Your task to perform on an android device: turn off sleep mode Image 0: 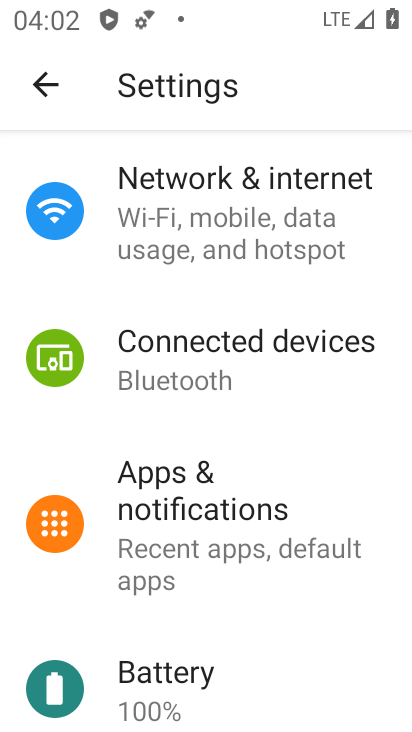
Step 0: click (49, 80)
Your task to perform on an android device: turn off sleep mode Image 1: 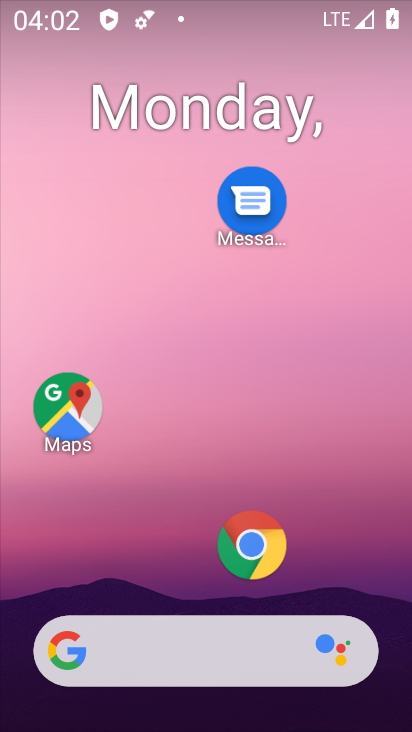
Step 1: drag from (158, 564) to (261, 127)
Your task to perform on an android device: turn off sleep mode Image 2: 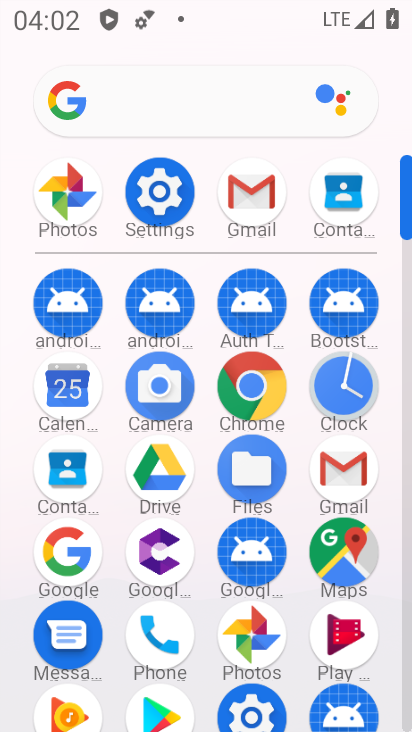
Step 2: click (149, 187)
Your task to perform on an android device: turn off sleep mode Image 3: 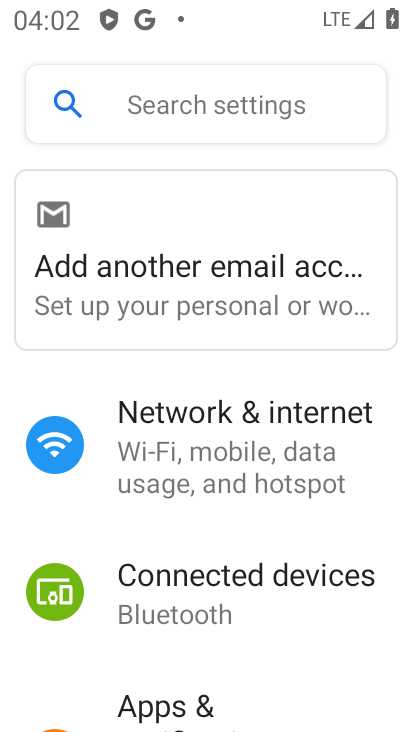
Step 3: click (190, 102)
Your task to perform on an android device: turn off sleep mode Image 4: 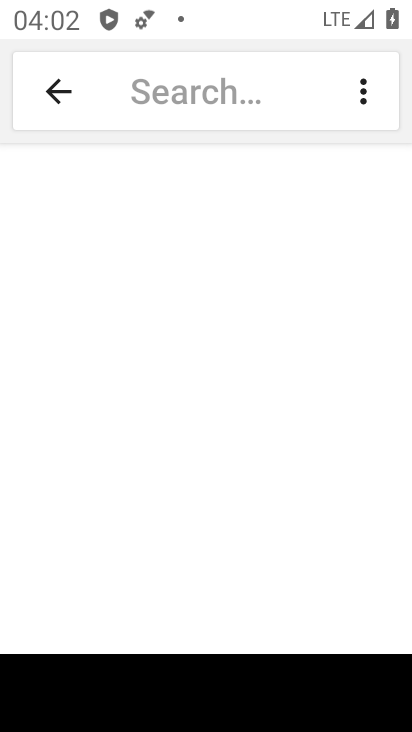
Step 4: click (156, 97)
Your task to perform on an android device: turn off sleep mode Image 5: 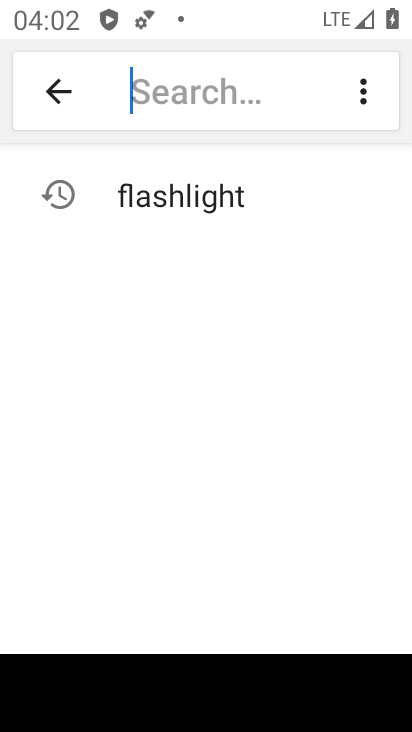
Step 5: type "sleep mode"
Your task to perform on an android device: turn off sleep mode Image 6: 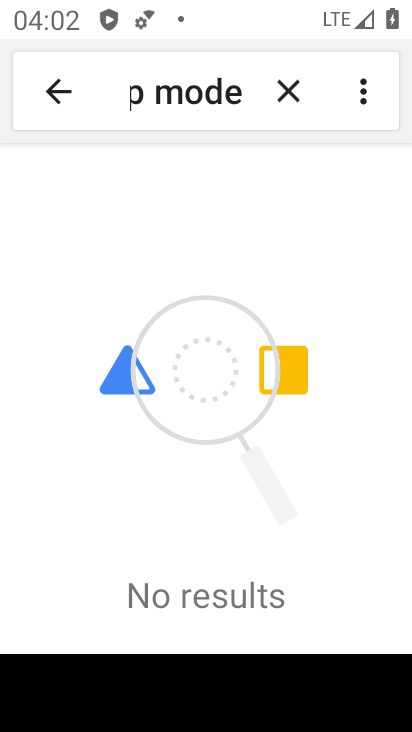
Step 6: task complete